Your task to perform on an android device: Go to privacy settings Image 0: 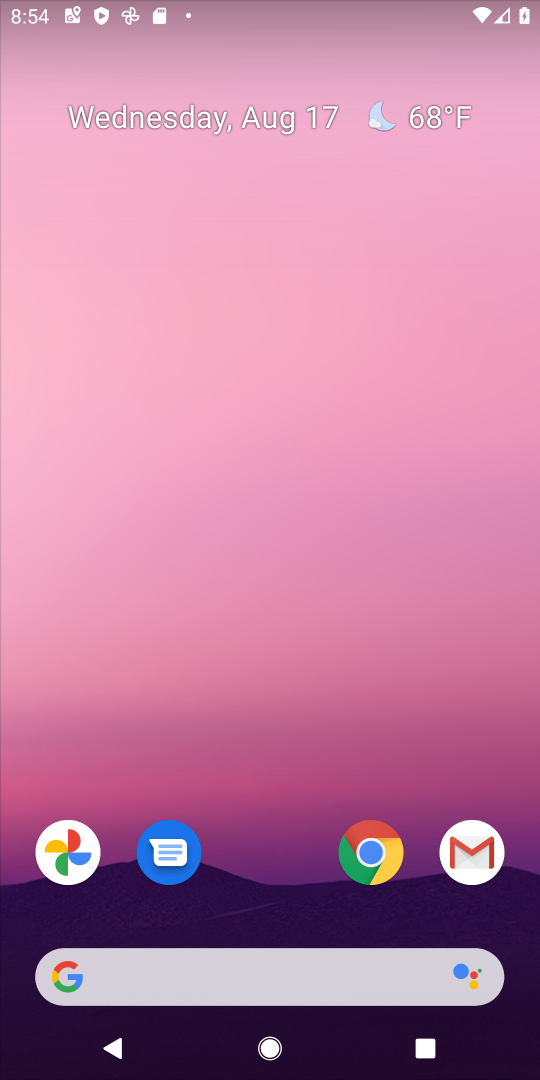
Step 0: drag from (261, 908) to (291, 249)
Your task to perform on an android device: Go to privacy settings Image 1: 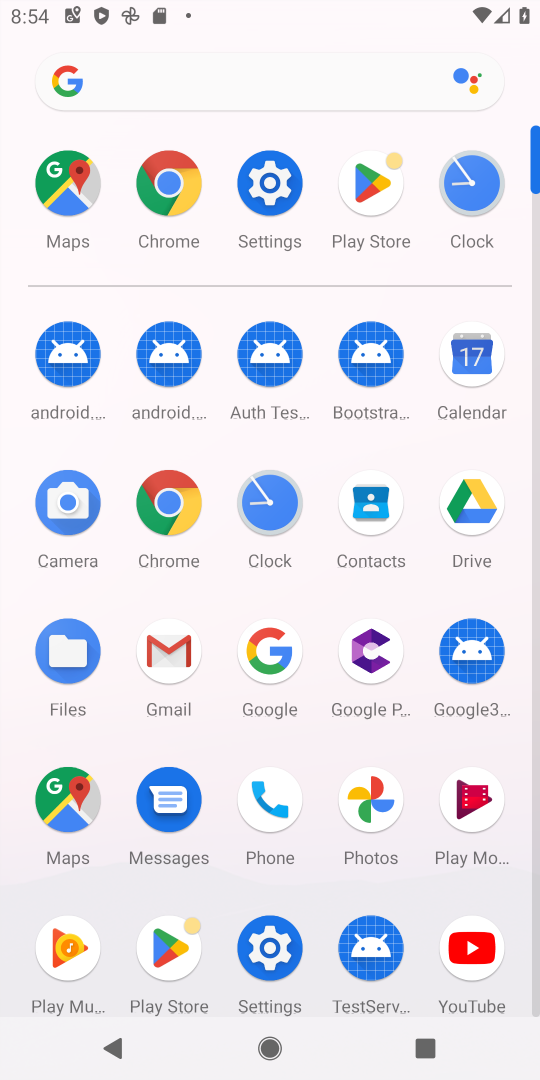
Step 1: click (271, 178)
Your task to perform on an android device: Go to privacy settings Image 2: 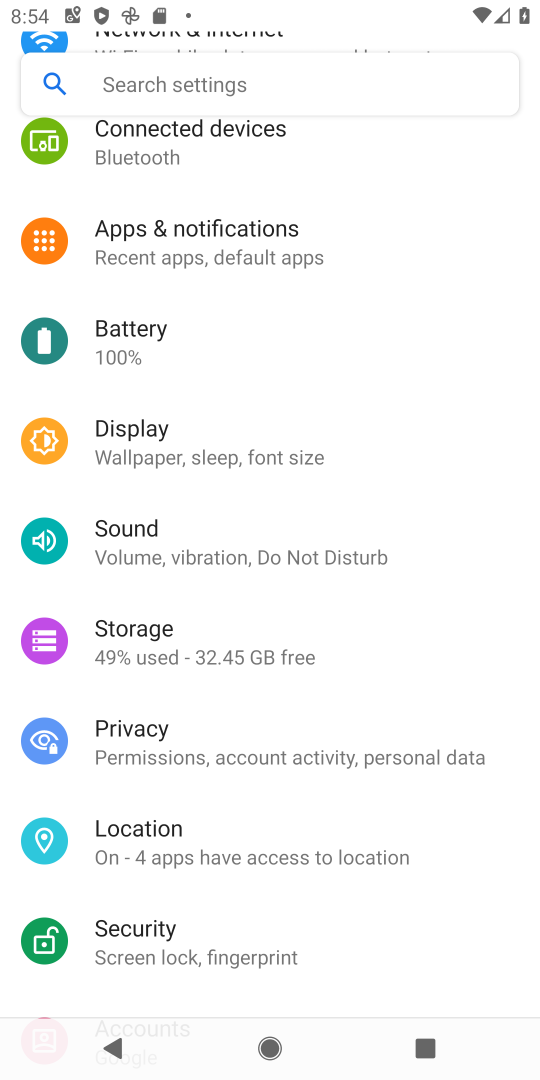
Step 2: click (134, 737)
Your task to perform on an android device: Go to privacy settings Image 3: 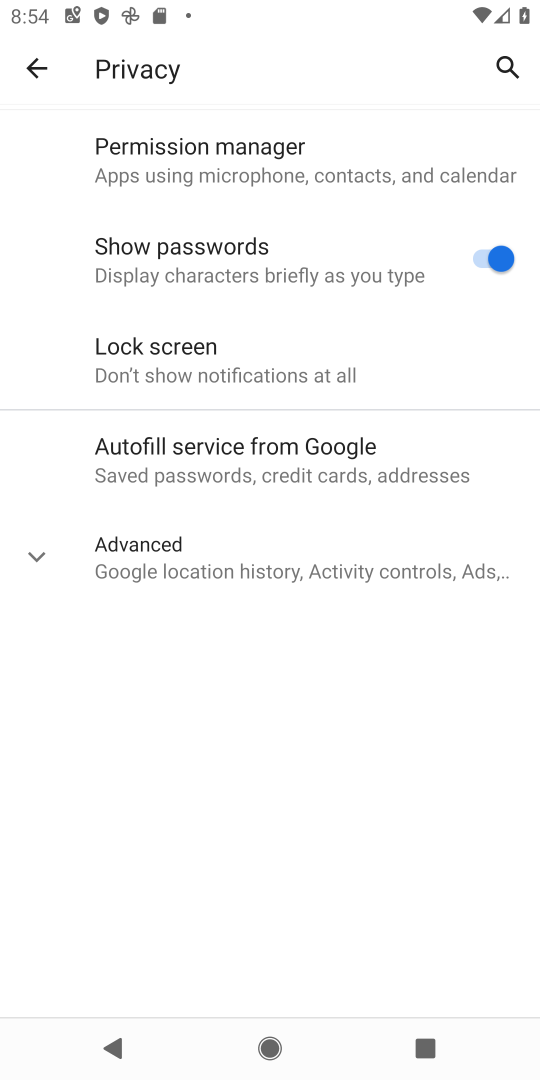
Step 3: task complete